Your task to perform on an android device: Open the phone app and click the voicemail tab. Image 0: 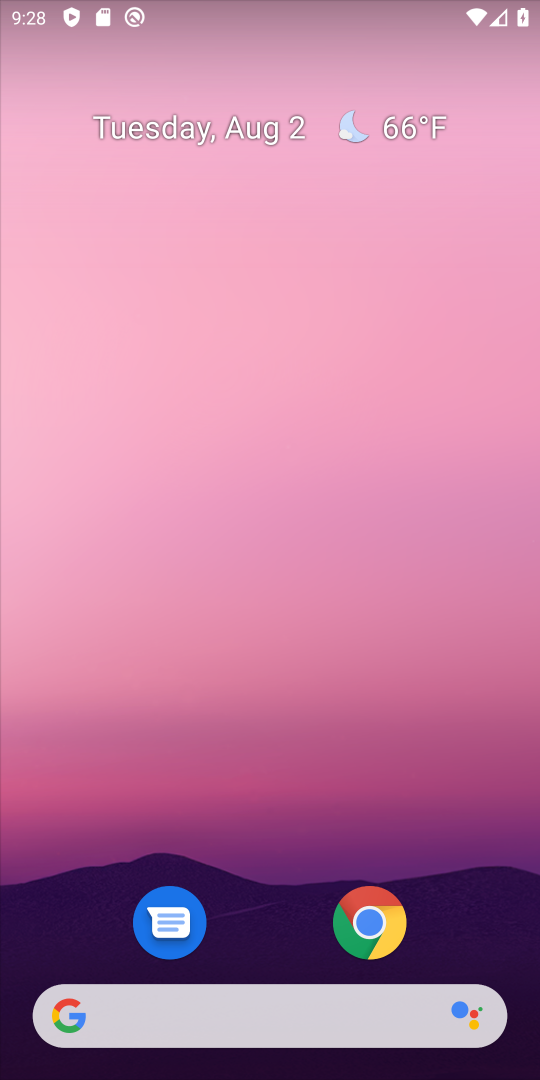
Step 0: drag from (490, 934) to (420, 253)
Your task to perform on an android device: Open the phone app and click the voicemail tab. Image 1: 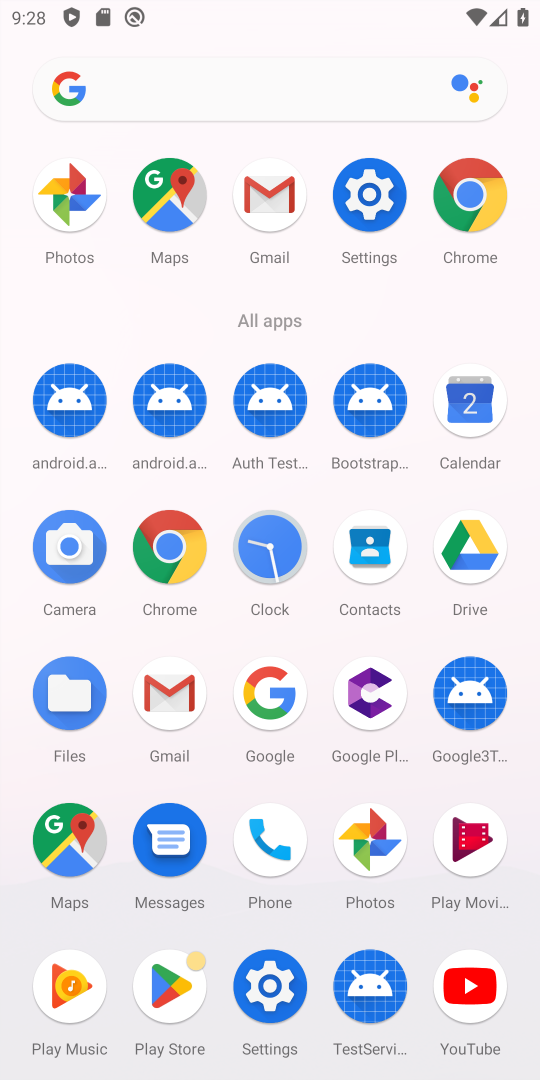
Step 1: click (274, 835)
Your task to perform on an android device: Open the phone app and click the voicemail tab. Image 2: 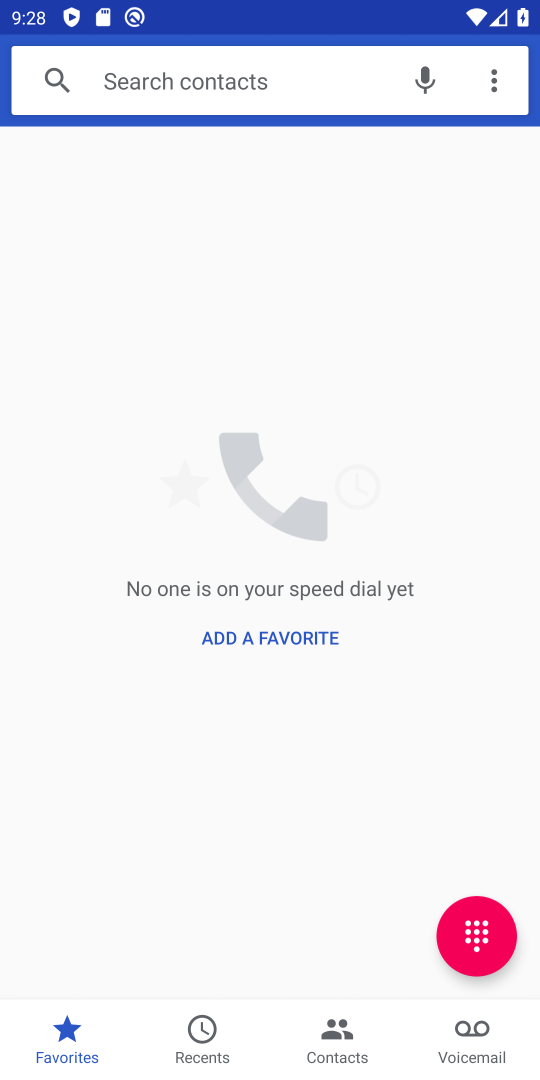
Step 2: click (477, 1033)
Your task to perform on an android device: Open the phone app and click the voicemail tab. Image 3: 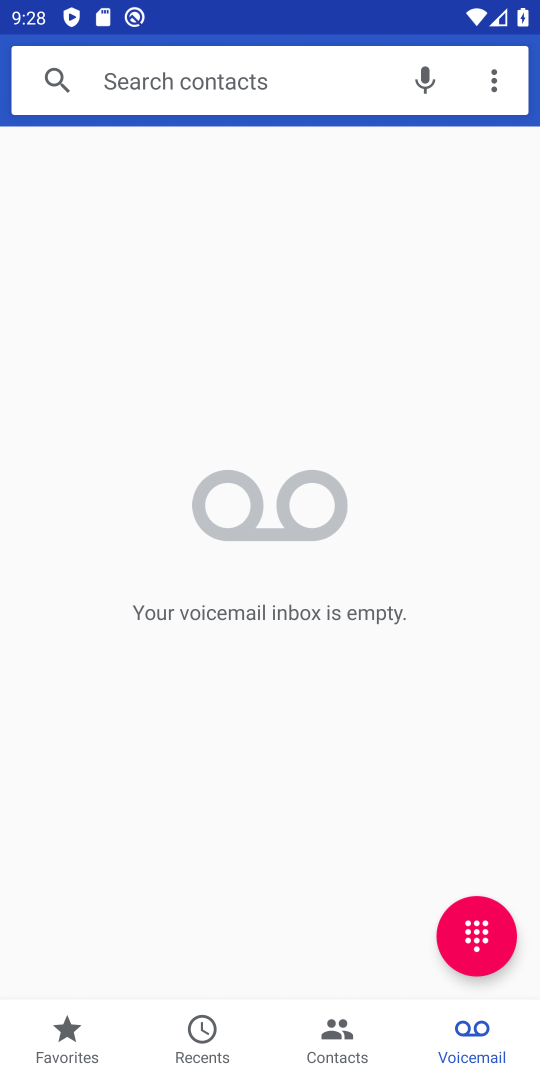
Step 3: task complete